Your task to perform on an android device: search for starred emails in the gmail app Image 0: 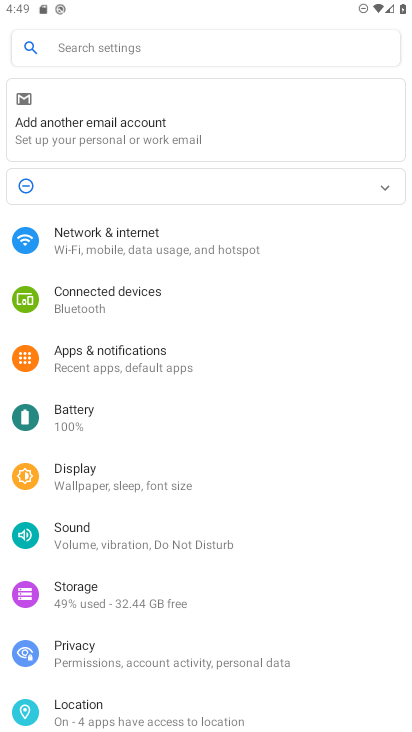
Step 0: press home button
Your task to perform on an android device: search for starred emails in the gmail app Image 1: 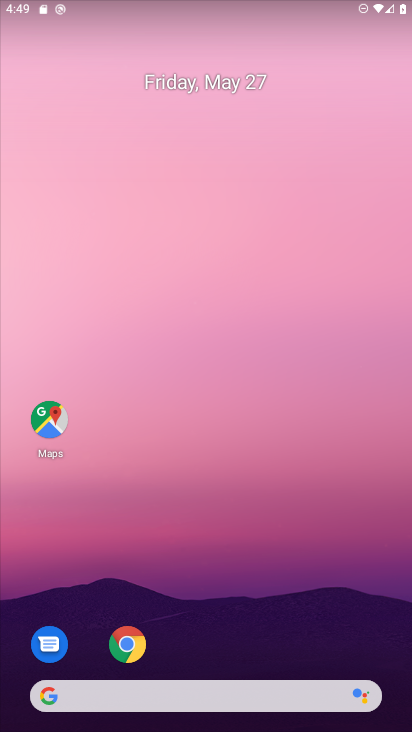
Step 1: drag from (217, 654) to (227, 58)
Your task to perform on an android device: search for starred emails in the gmail app Image 2: 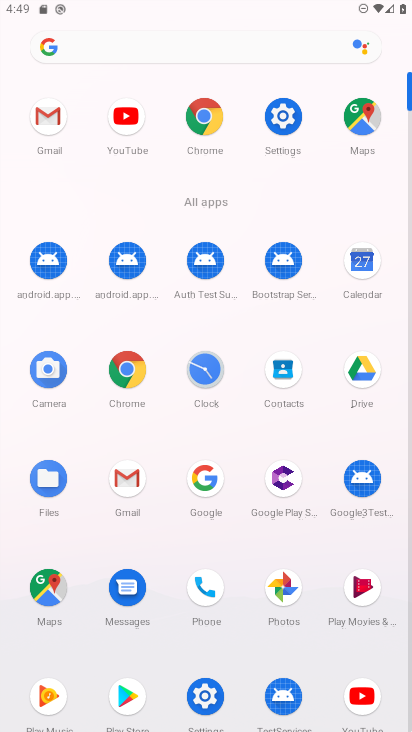
Step 2: click (67, 148)
Your task to perform on an android device: search for starred emails in the gmail app Image 3: 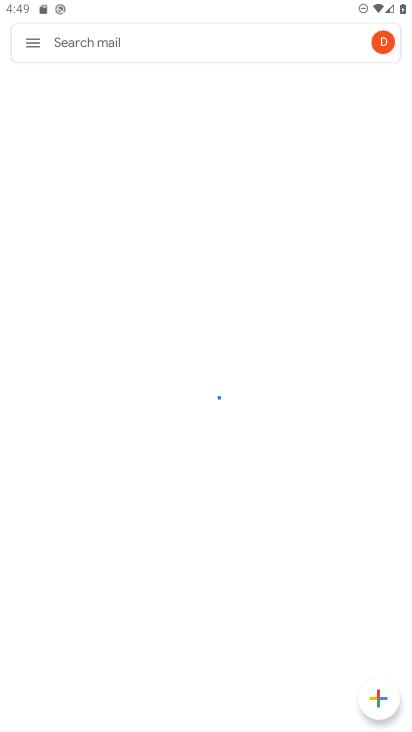
Step 3: click (25, 26)
Your task to perform on an android device: search for starred emails in the gmail app Image 4: 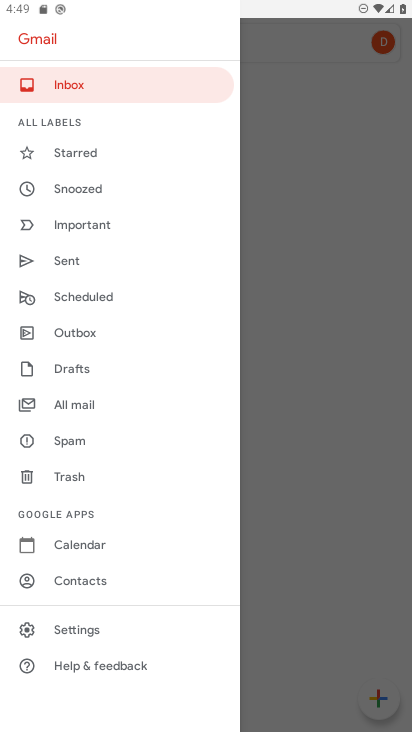
Step 4: click (81, 162)
Your task to perform on an android device: search for starred emails in the gmail app Image 5: 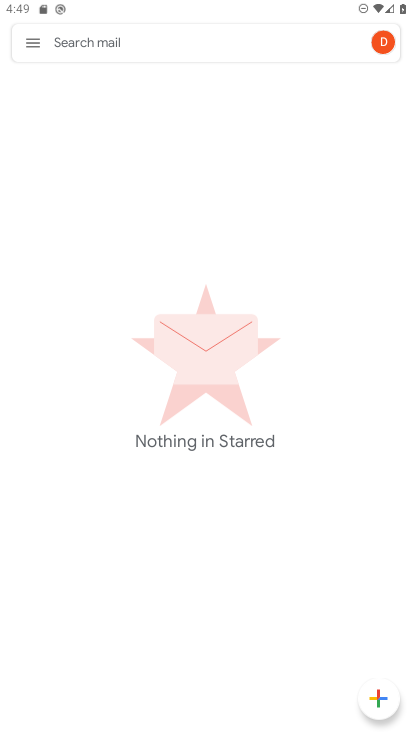
Step 5: task complete